Your task to perform on an android device: Open the Play Movies app and select the watchlist tab. Image 0: 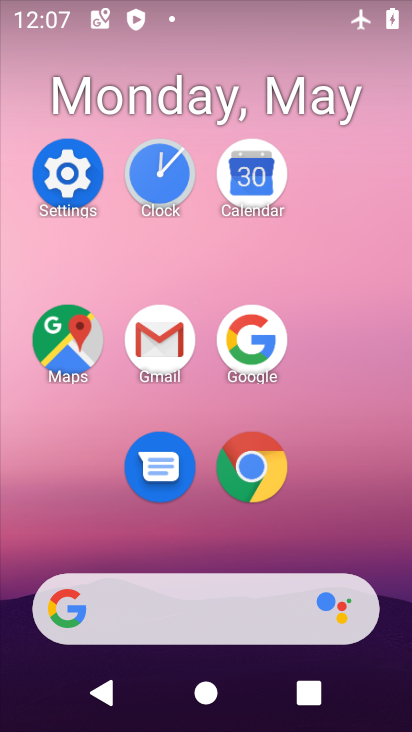
Step 0: drag from (341, 529) to (352, 103)
Your task to perform on an android device: Open the Play Movies app and select the watchlist tab. Image 1: 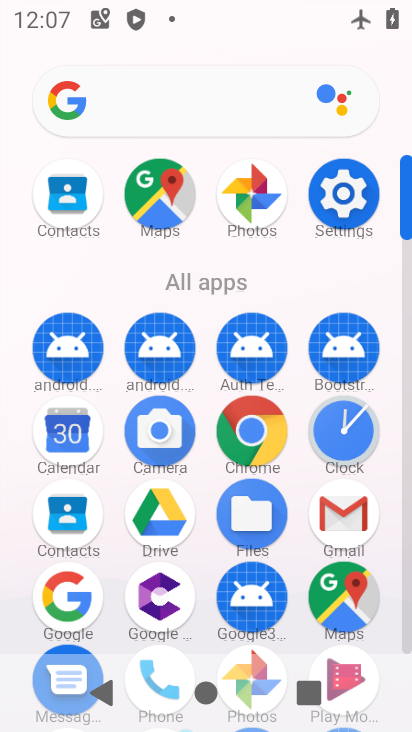
Step 1: drag from (302, 608) to (307, 260)
Your task to perform on an android device: Open the Play Movies app and select the watchlist tab. Image 2: 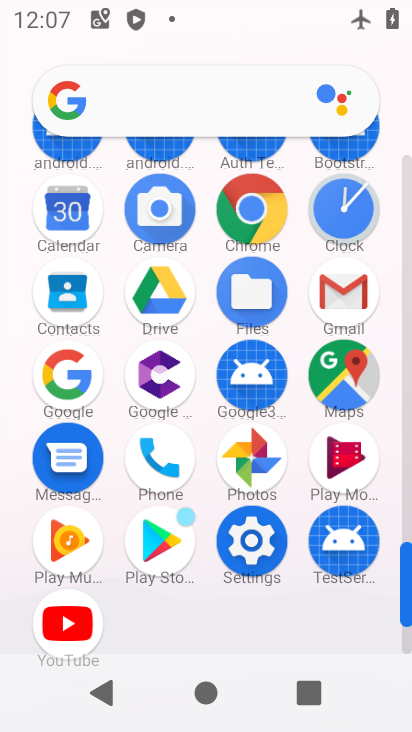
Step 2: click (342, 460)
Your task to perform on an android device: Open the Play Movies app and select the watchlist tab. Image 3: 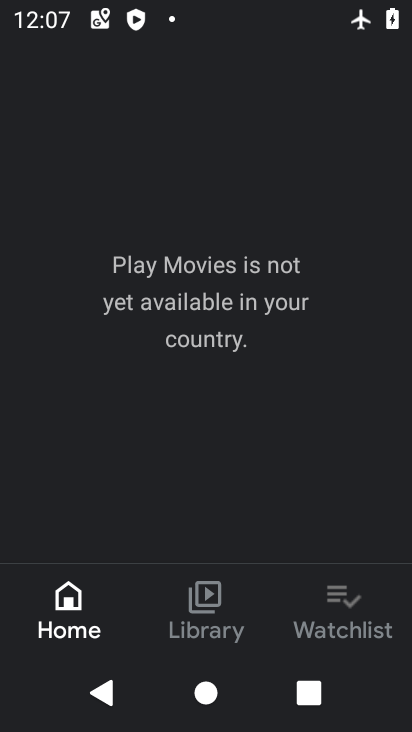
Step 3: click (322, 595)
Your task to perform on an android device: Open the Play Movies app and select the watchlist tab. Image 4: 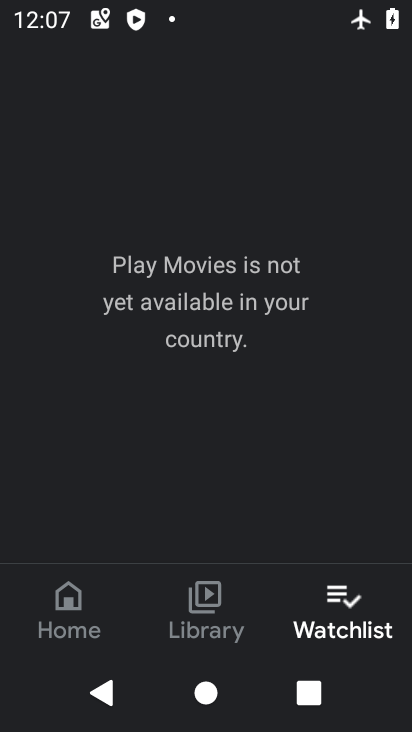
Step 4: task complete